Your task to perform on an android device: Open Wikipedia Image 0: 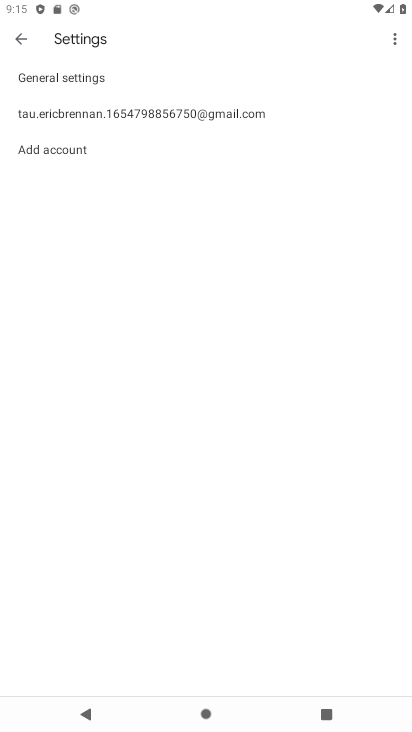
Step 0: press home button
Your task to perform on an android device: Open Wikipedia Image 1: 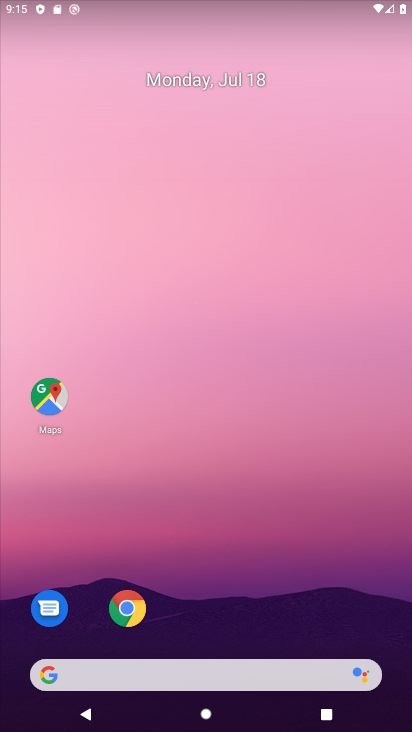
Step 1: click (119, 611)
Your task to perform on an android device: Open Wikipedia Image 2: 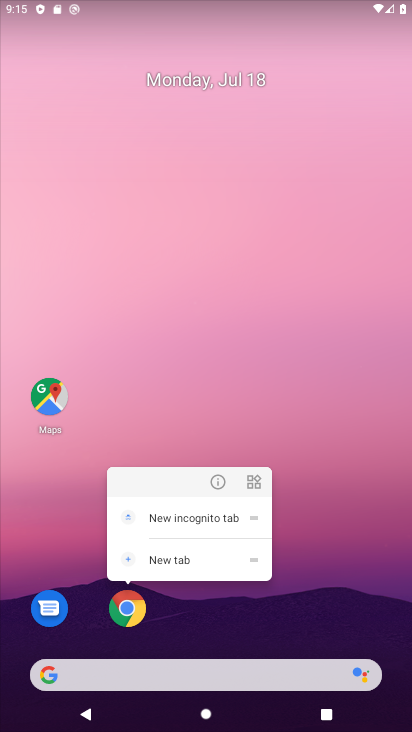
Step 2: click (121, 614)
Your task to perform on an android device: Open Wikipedia Image 3: 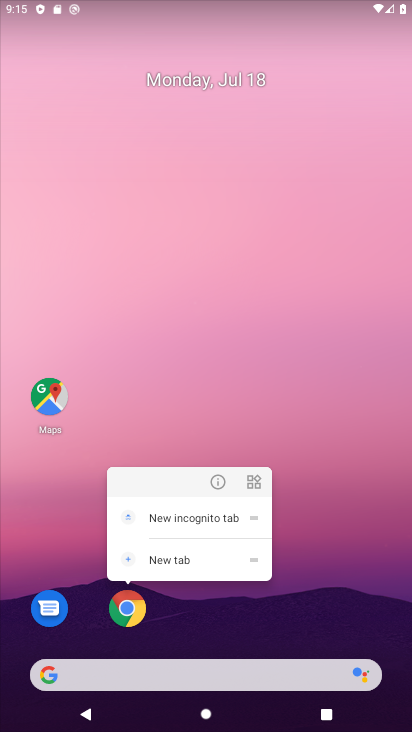
Step 3: click (122, 614)
Your task to perform on an android device: Open Wikipedia Image 4: 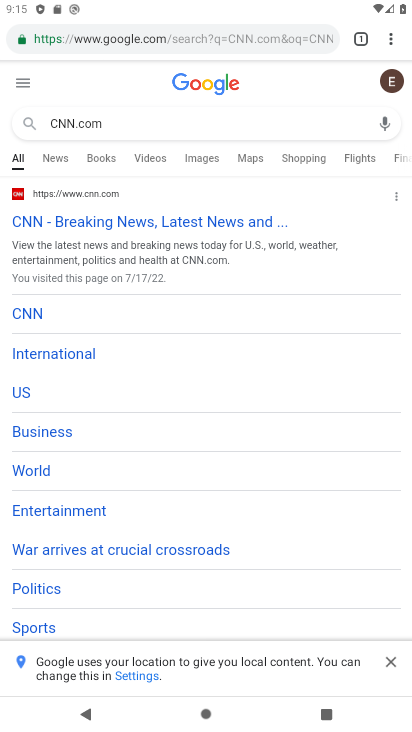
Step 4: click (180, 122)
Your task to perform on an android device: Open Wikipedia Image 5: 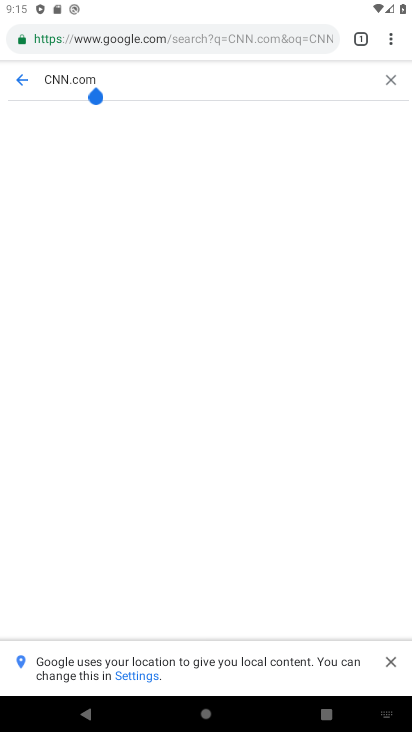
Step 5: click (183, 34)
Your task to perform on an android device: Open Wikipedia Image 6: 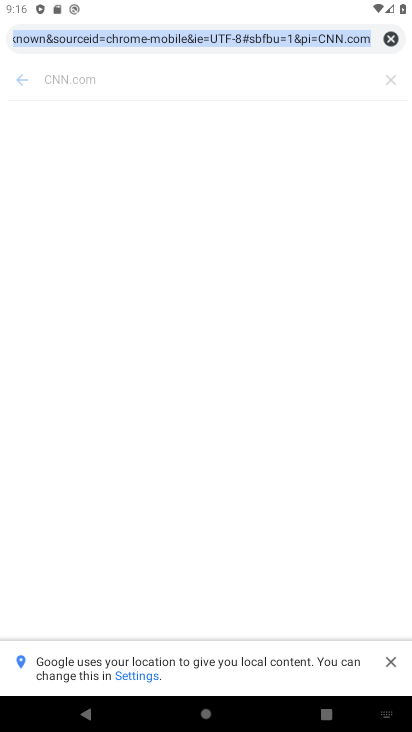
Step 6: type "wikipedia.com"
Your task to perform on an android device: Open Wikipedia Image 7: 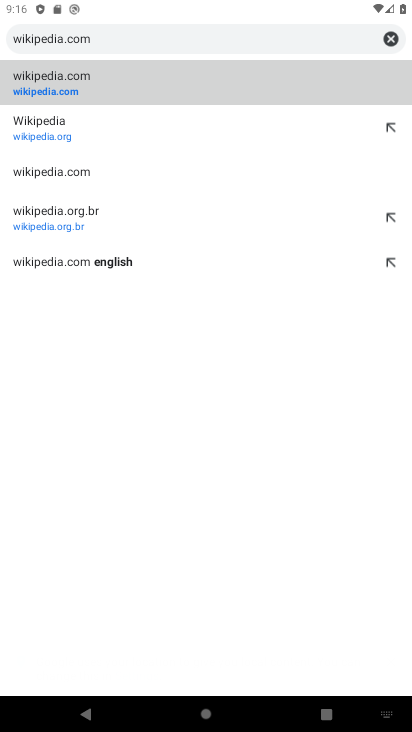
Step 7: click (80, 81)
Your task to perform on an android device: Open Wikipedia Image 8: 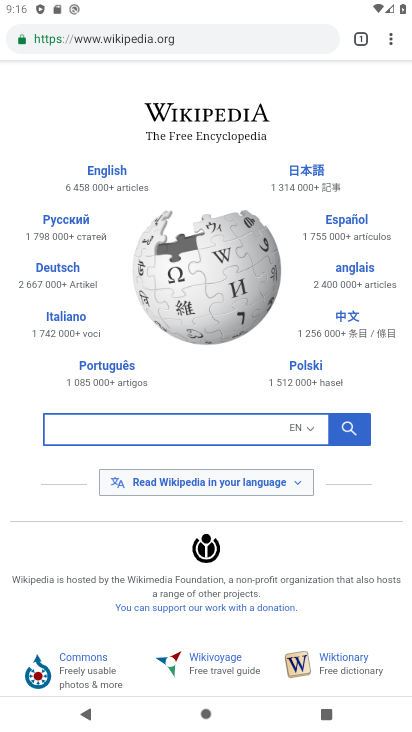
Step 8: task complete